Your task to perform on an android device: turn on the 24-hour format for clock Image 0: 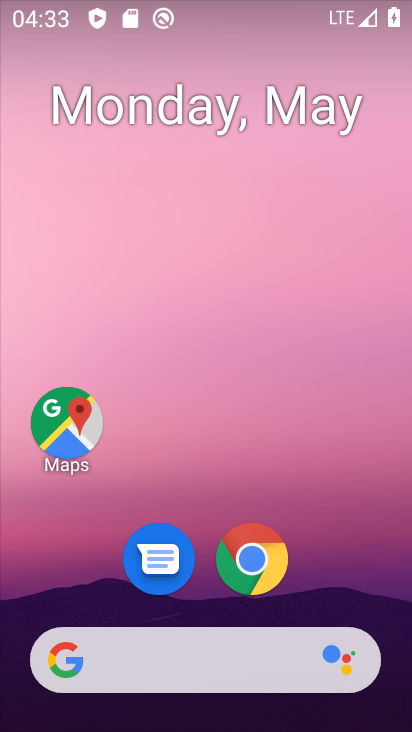
Step 0: drag from (278, 630) to (326, 0)
Your task to perform on an android device: turn on the 24-hour format for clock Image 1: 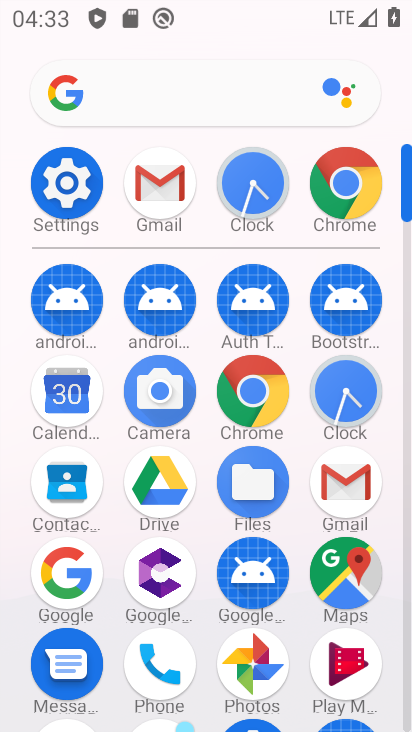
Step 1: click (356, 399)
Your task to perform on an android device: turn on the 24-hour format for clock Image 2: 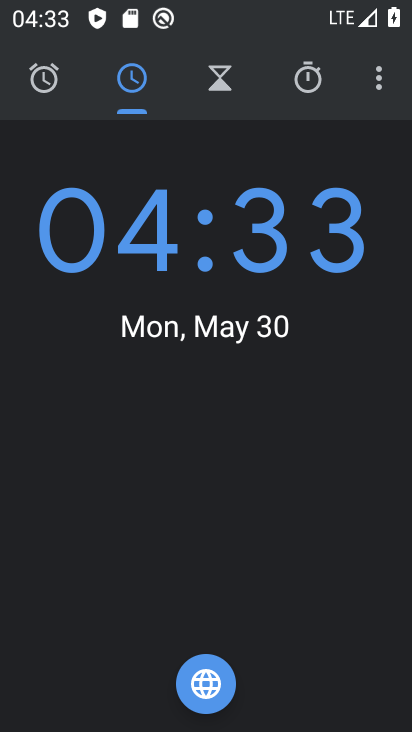
Step 2: click (369, 65)
Your task to perform on an android device: turn on the 24-hour format for clock Image 3: 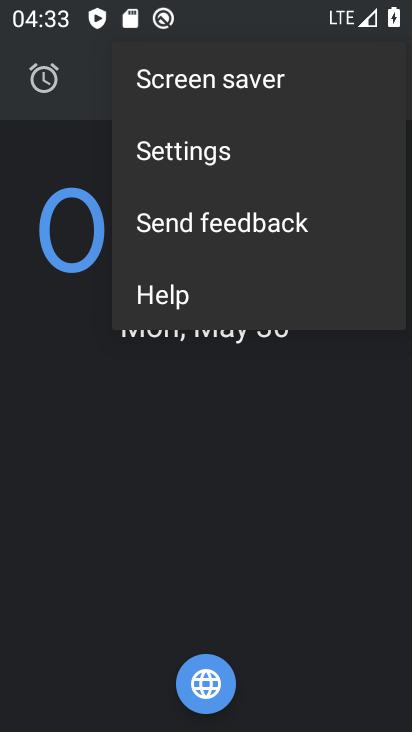
Step 3: click (221, 162)
Your task to perform on an android device: turn on the 24-hour format for clock Image 4: 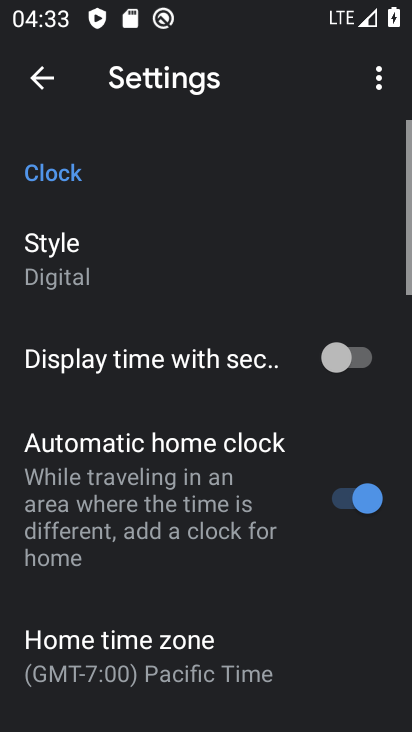
Step 4: drag from (195, 584) to (229, 202)
Your task to perform on an android device: turn on the 24-hour format for clock Image 5: 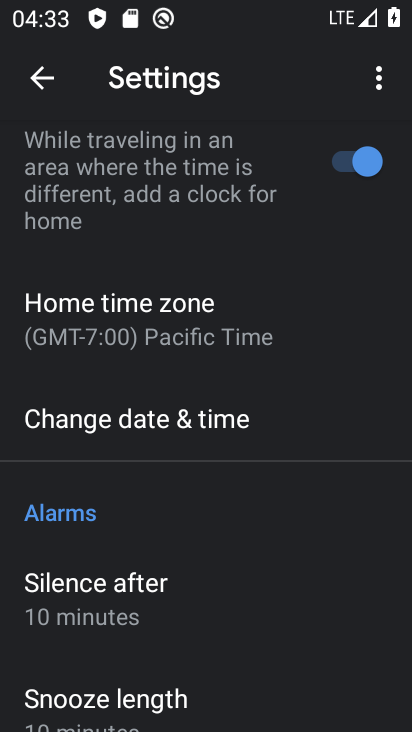
Step 5: click (246, 433)
Your task to perform on an android device: turn on the 24-hour format for clock Image 6: 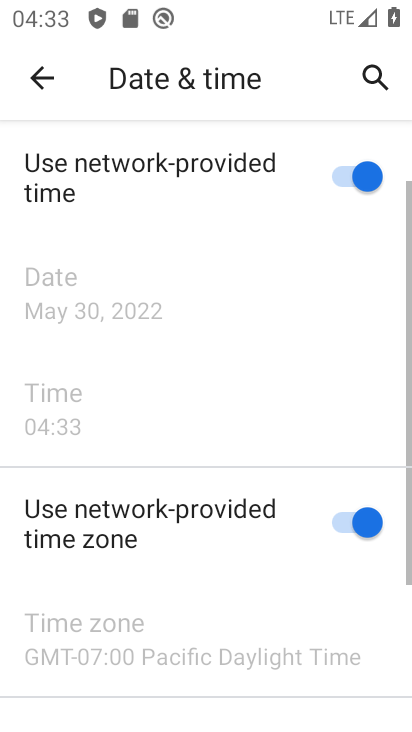
Step 6: task complete